Your task to perform on an android device: What's the weather going to be tomorrow? Image 0: 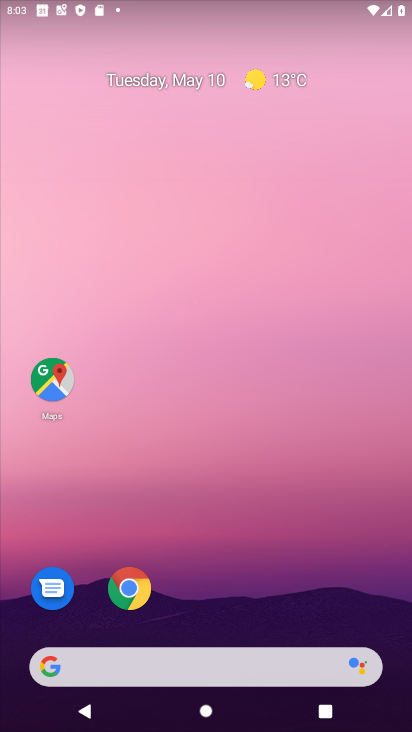
Step 0: click (302, 73)
Your task to perform on an android device: What's the weather going to be tomorrow? Image 1: 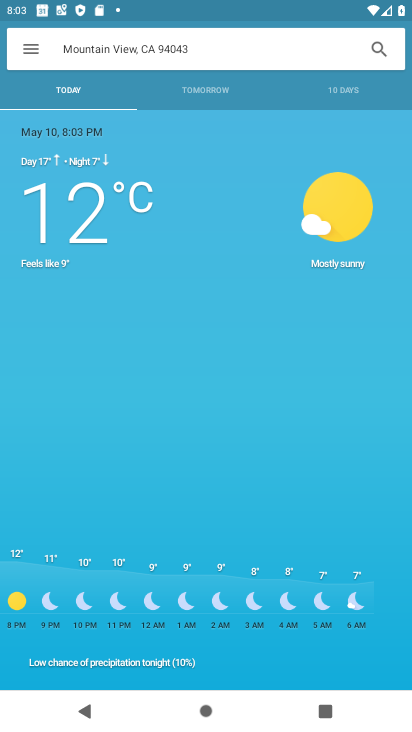
Step 1: click (221, 101)
Your task to perform on an android device: What's the weather going to be tomorrow? Image 2: 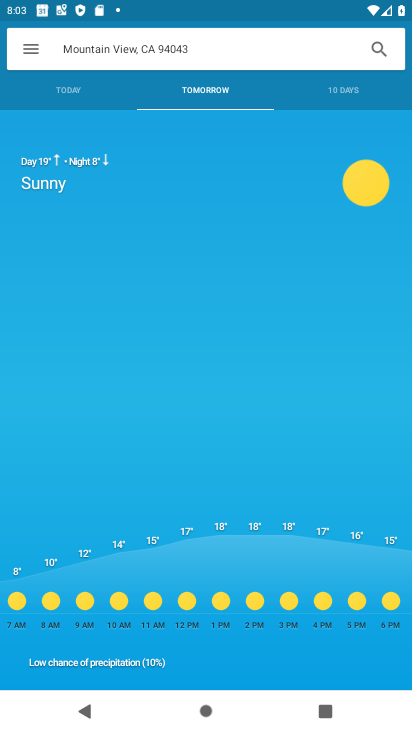
Step 2: task complete